Your task to perform on an android device: see creations saved in the google photos Image 0: 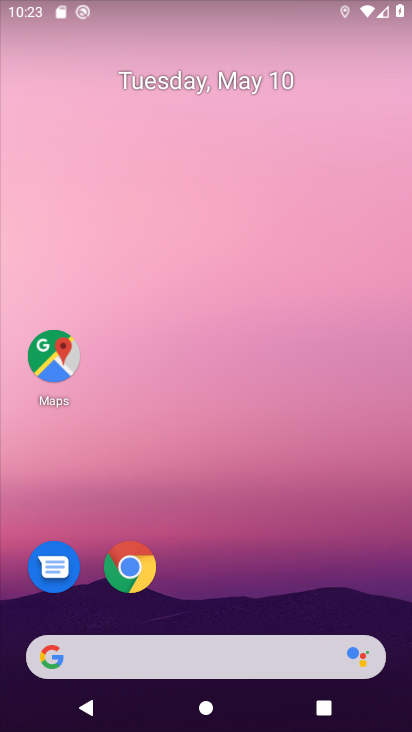
Step 0: drag from (211, 458) to (280, 76)
Your task to perform on an android device: see creations saved in the google photos Image 1: 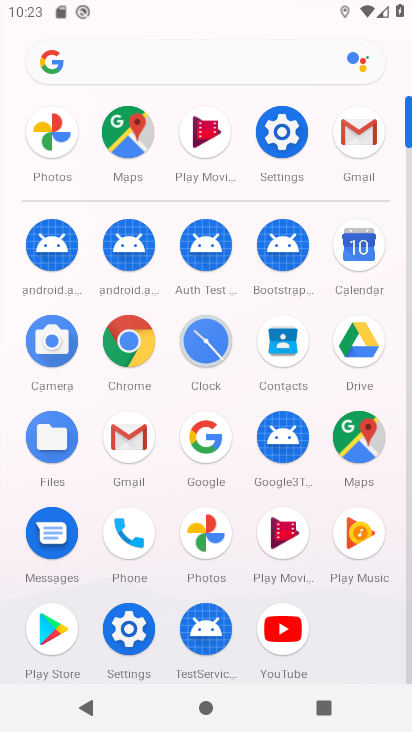
Step 1: click (202, 536)
Your task to perform on an android device: see creations saved in the google photos Image 2: 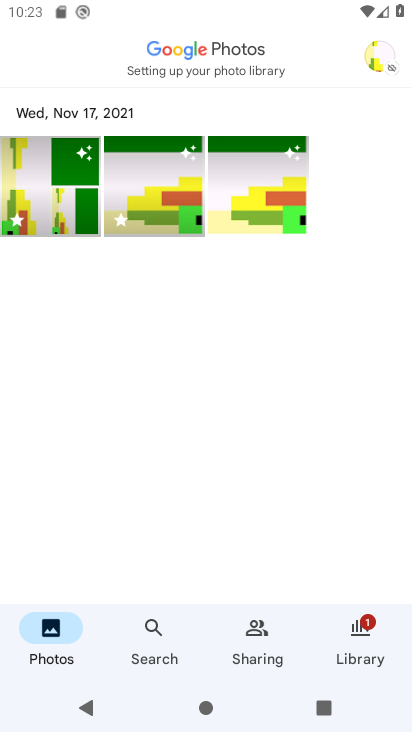
Step 2: click (378, 637)
Your task to perform on an android device: see creations saved in the google photos Image 3: 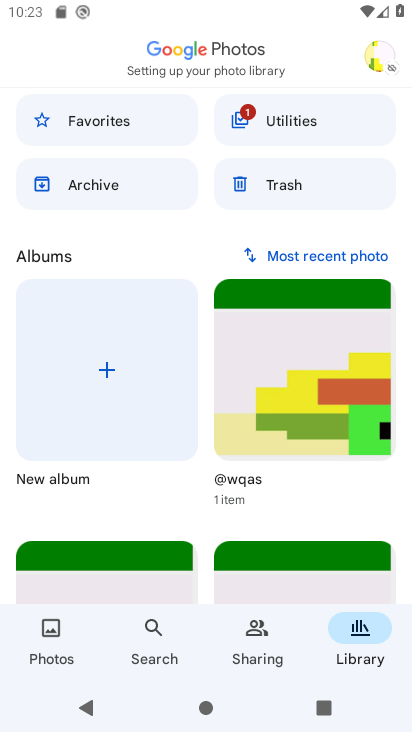
Step 3: click (383, 50)
Your task to perform on an android device: see creations saved in the google photos Image 4: 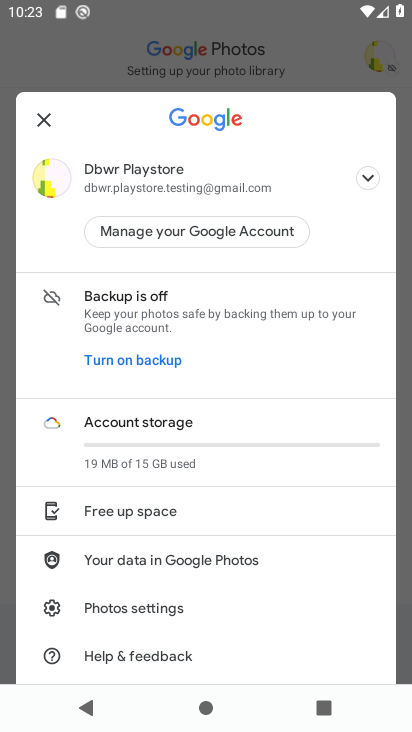
Step 4: task complete